Your task to perform on an android device: Go to calendar. Show me events next week Image 0: 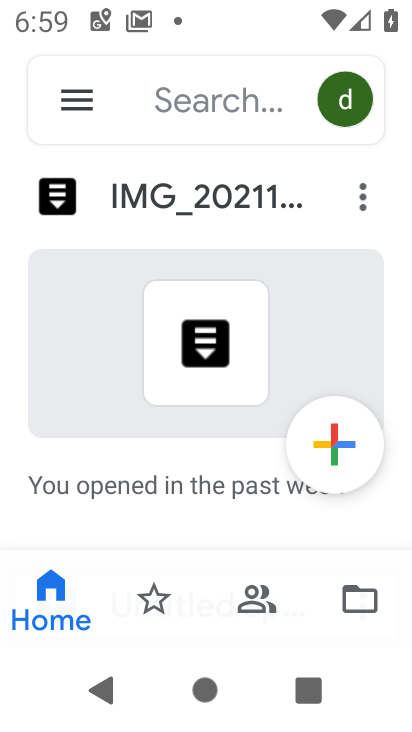
Step 0: press home button
Your task to perform on an android device: Go to calendar. Show me events next week Image 1: 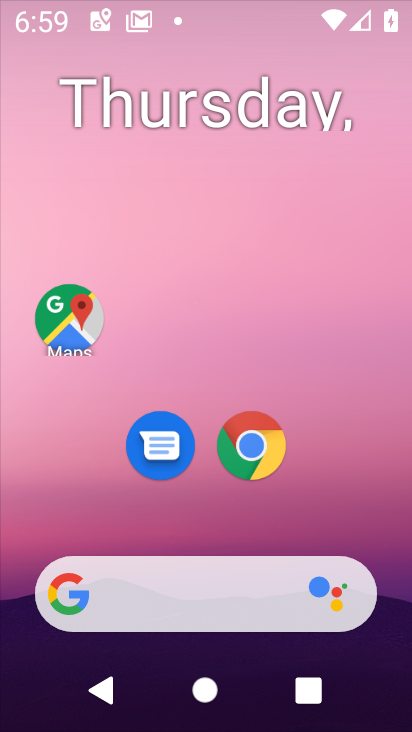
Step 1: drag from (381, 659) to (191, 20)
Your task to perform on an android device: Go to calendar. Show me events next week Image 2: 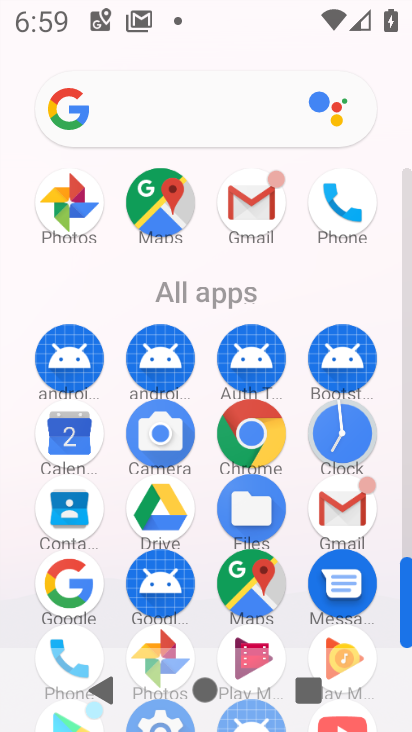
Step 2: click (82, 455)
Your task to perform on an android device: Go to calendar. Show me events next week Image 3: 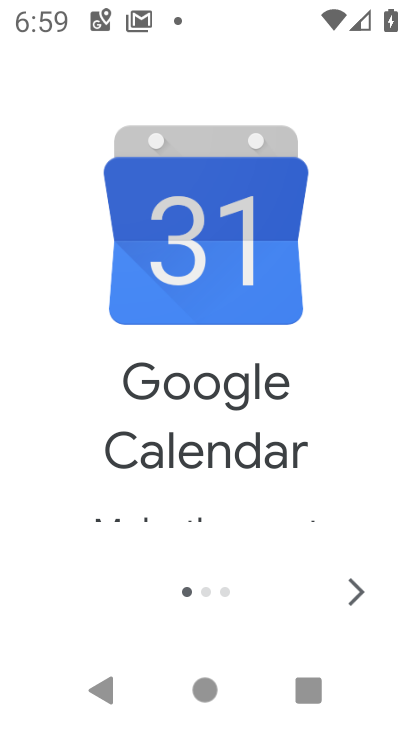
Step 3: click (366, 575)
Your task to perform on an android device: Go to calendar. Show me events next week Image 4: 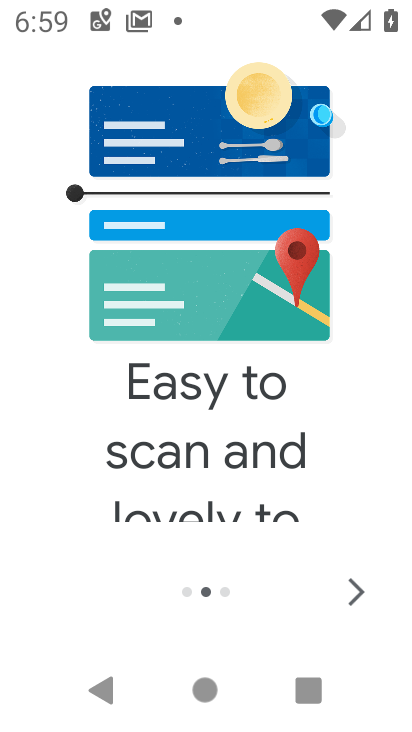
Step 4: click (357, 585)
Your task to perform on an android device: Go to calendar. Show me events next week Image 5: 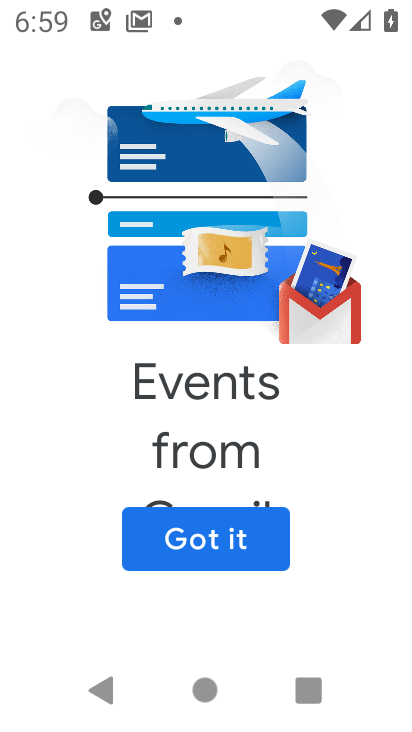
Step 5: click (152, 520)
Your task to perform on an android device: Go to calendar. Show me events next week Image 6: 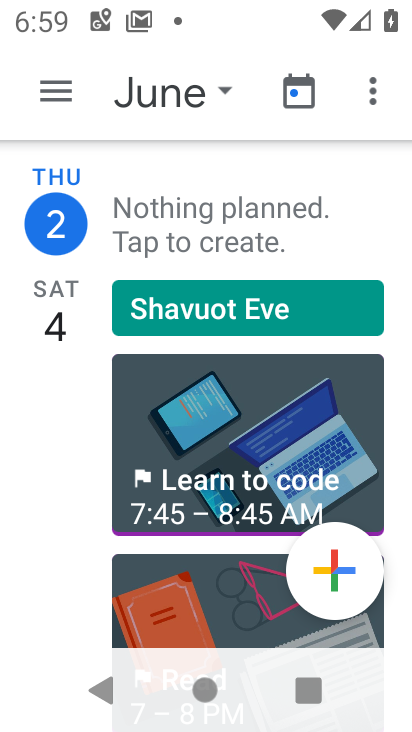
Step 6: click (183, 86)
Your task to perform on an android device: Go to calendar. Show me events next week Image 7: 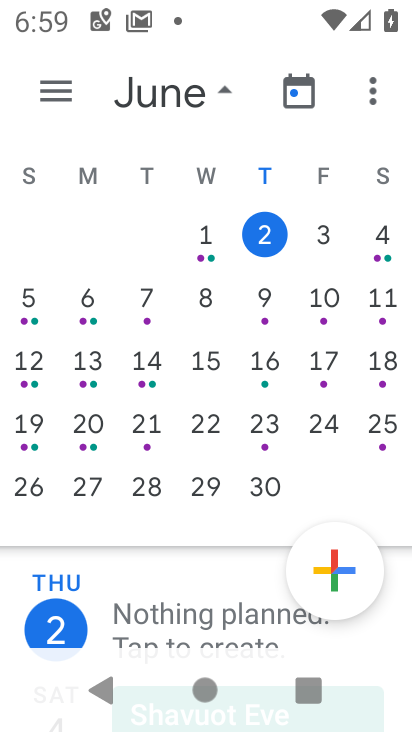
Step 7: click (30, 358)
Your task to perform on an android device: Go to calendar. Show me events next week Image 8: 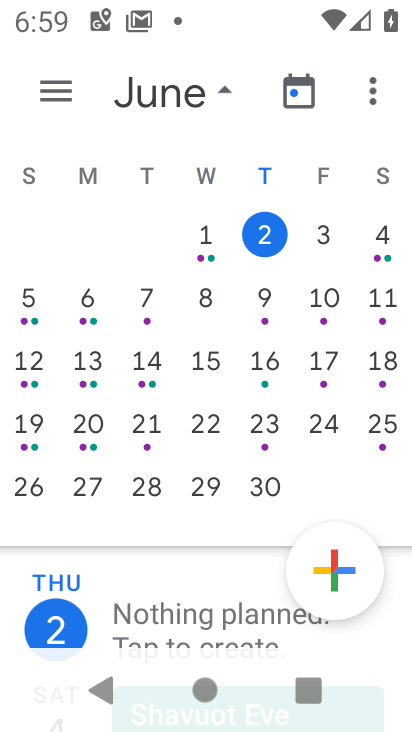
Step 8: click (30, 358)
Your task to perform on an android device: Go to calendar. Show me events next week Image 9: 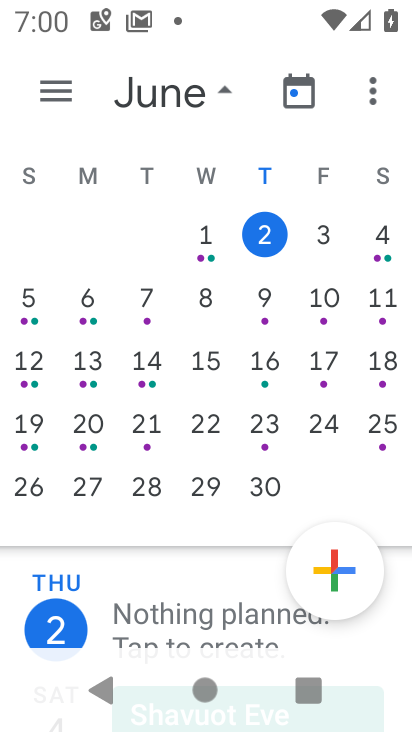
Step 9: click (90, 358)
Your task to perform on an android device: Go to calendar. Show me events next week Image 10: 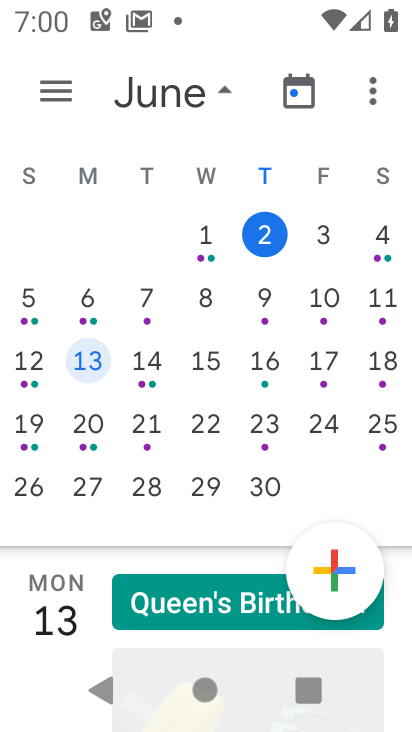
Step 10: click (199, 598)
Your task to perform on an android device: Go to calendar. Show me events next week Image 11: 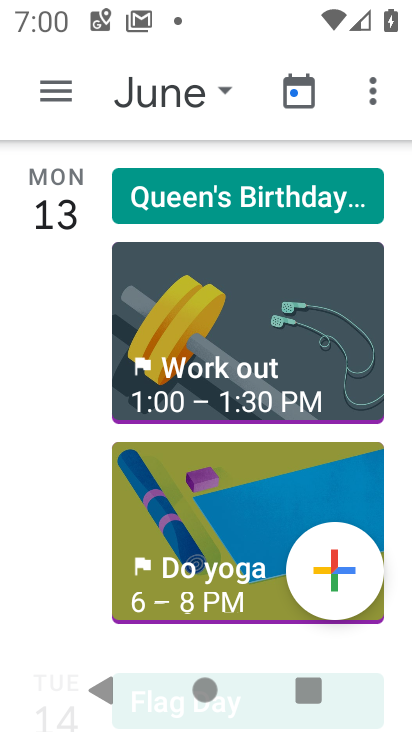
Step 11: task complete